Your task to perform on an android device: Open the Play Movies app and select the watchlist tab. Image 0: 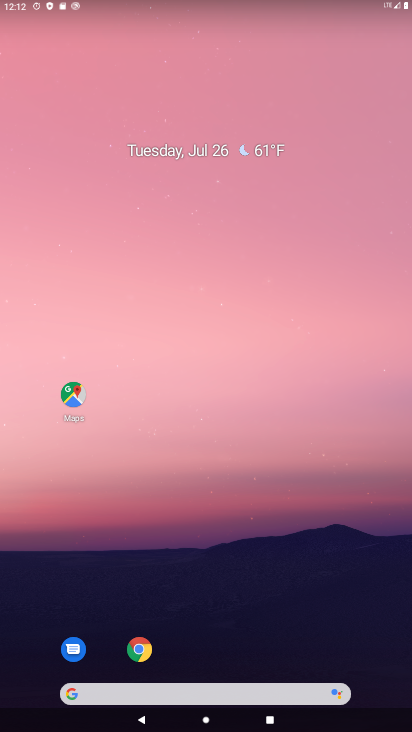
Step 0: drag from (230, 673) to (236, 92)
Your task to perform on an android device: Open the Play Movies app and select the watchlist tab. Image 1: 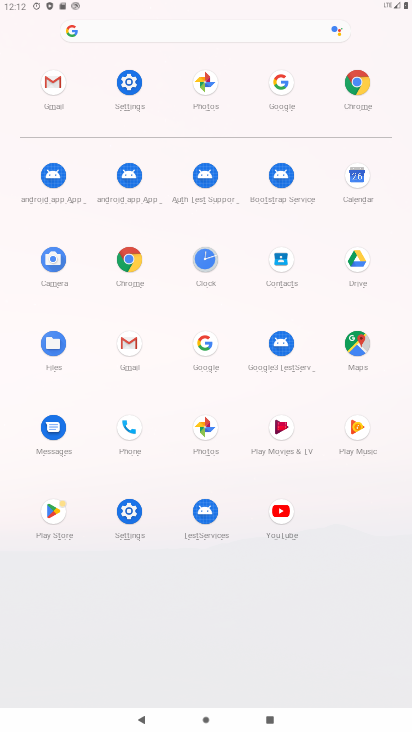
Step 1: click (276, 425)
Your task to perform on an android device: Open the Play Movies app and select the watchlist tab. Image 2: 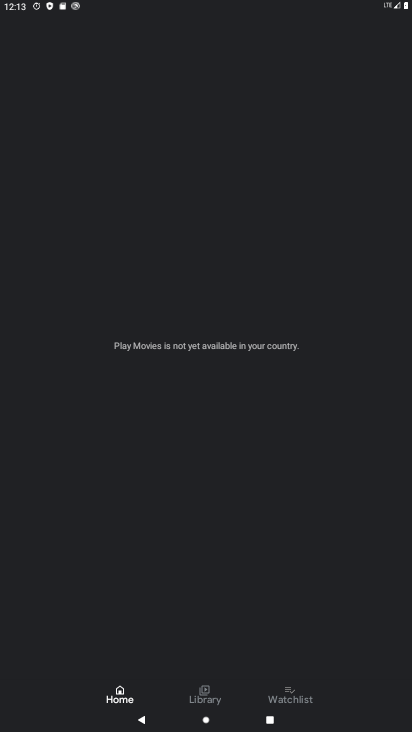
Step 2: click (287, 676)
Your task to perform on an android device: Open the Play Movies app and select the watchlist tab. Image 3: 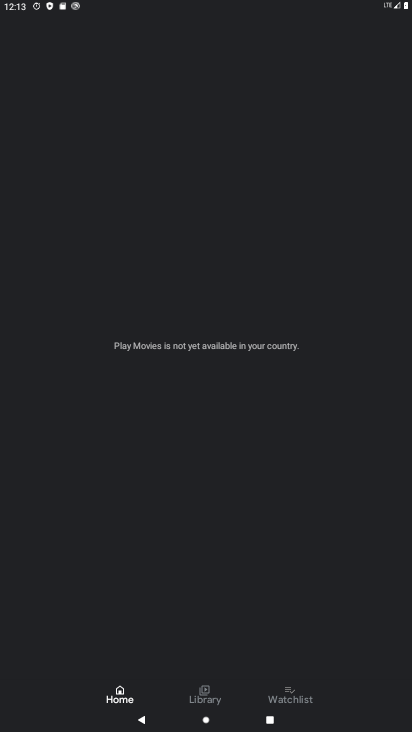
Step 3: click (250, 692)
Your task to perform on an android device: Open the Play Movies app and select the watchlist tab. Image 4: 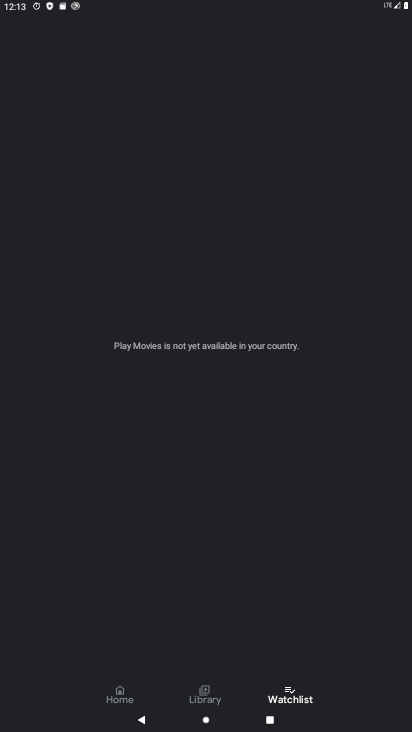
Step 4: task complete